Your task to perform on an android device: Search for the best rated mechanical keyboard on Amazon. Image 0: 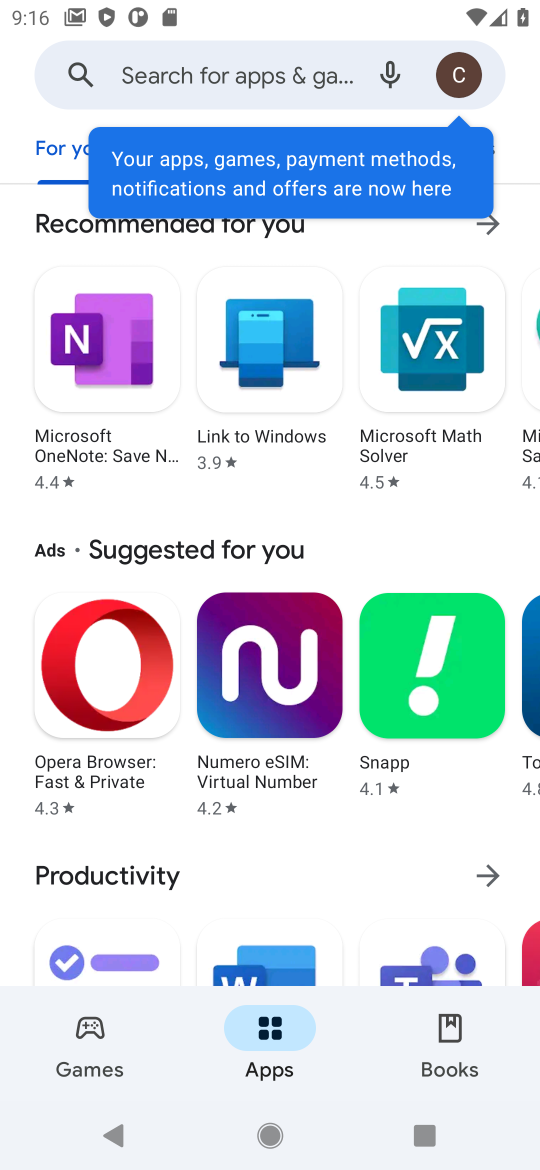
Step 0: press home button
Your task to perform on an android device: Search for the best rated mechanical keyboard on Amazon. Image 1: 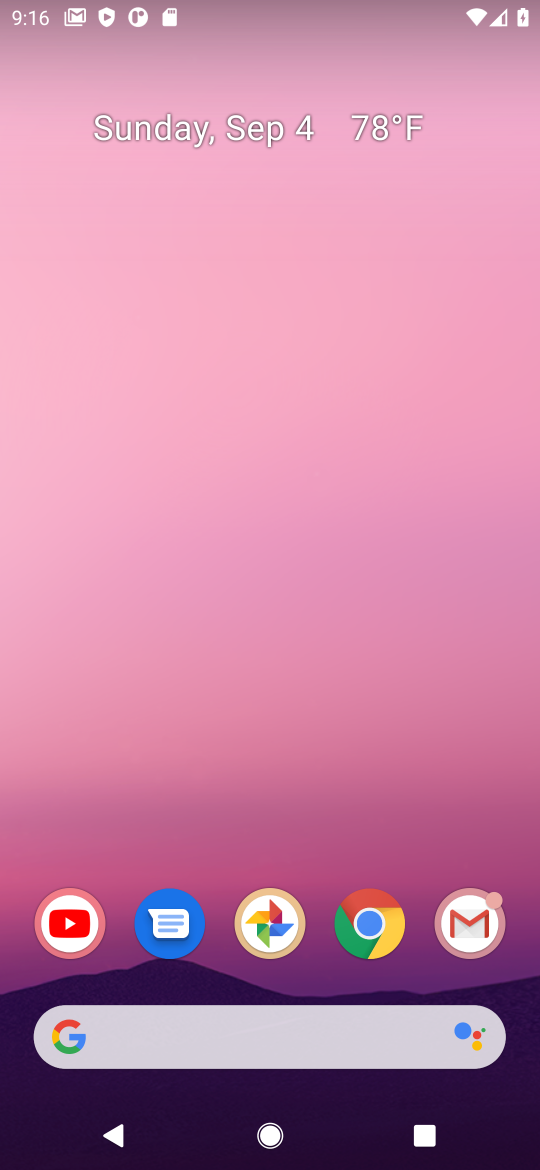
Step 1: click (116, 1031)
Your task to perform on an android device: Search for the best rated mechanical keyboard on Amazon. Image 2: 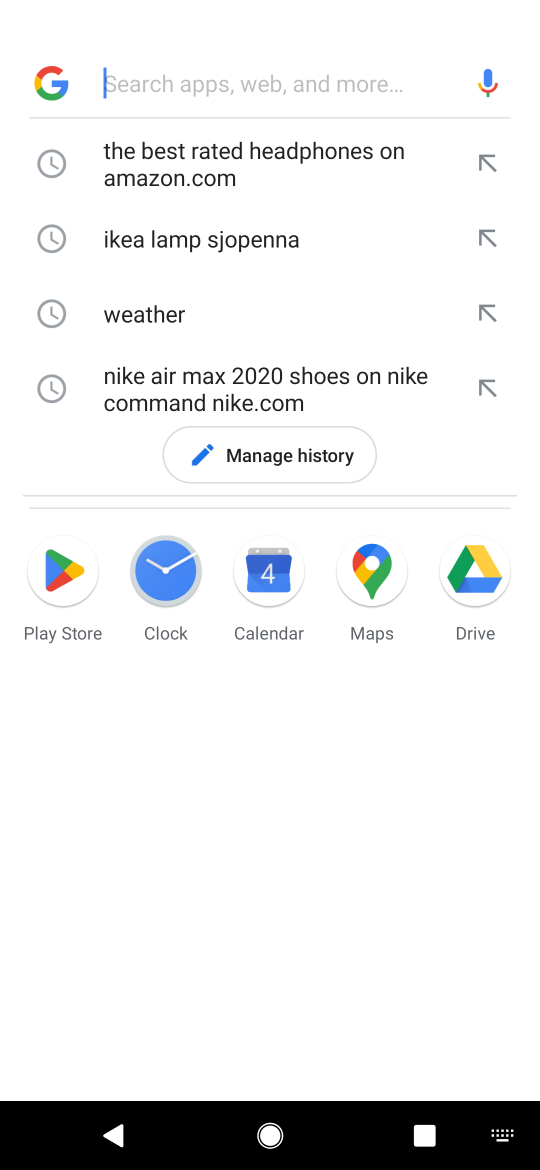
Step 2: type " the best rated mechanical keyboard on Amazon."
Your task to perform on an android device: Search for the best rated mechanical keyboard on Amazon. Image 3: 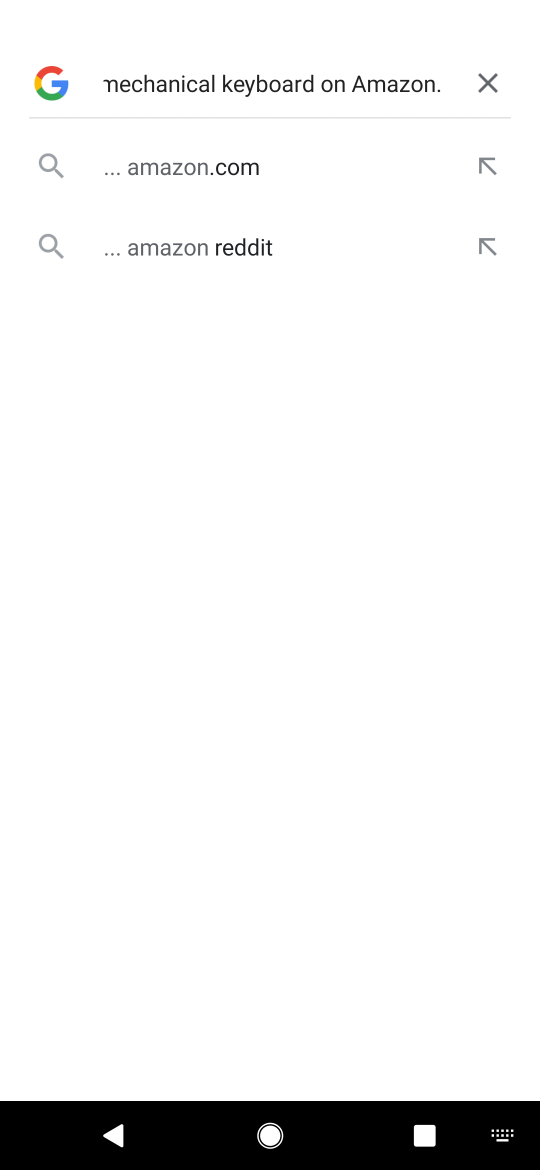
Step 3: type ""
Your task to perform on an android device: Search for the best rated mechanical keyboard on Amazon. Image 4: 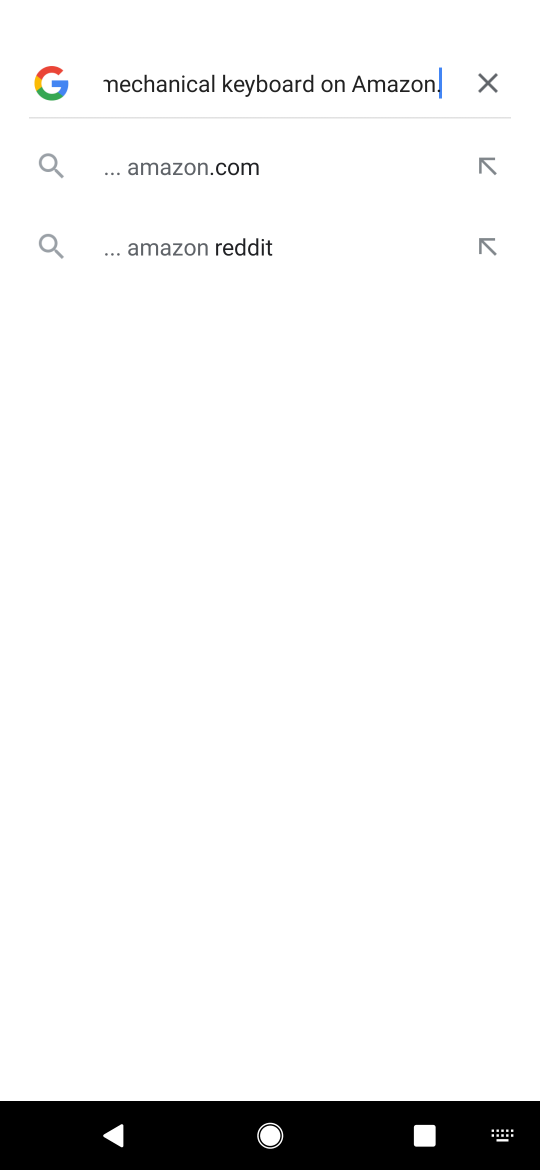
Step 4: click (237, 154)
Your task to perform on an android device: Search for the best rated mechanical keyboard on Amazon. Image 5: 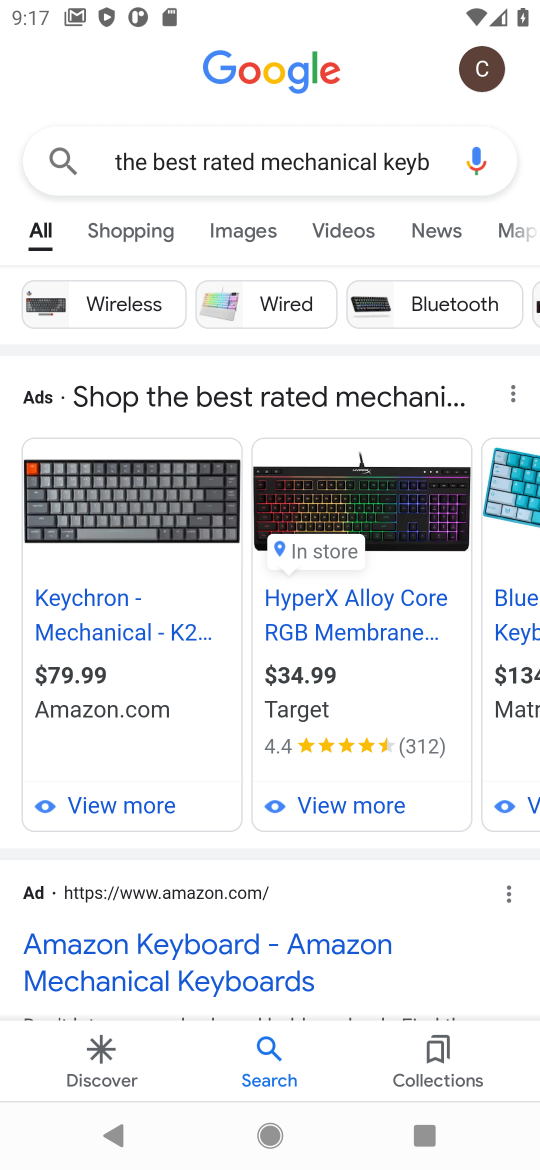
Step 5: click (368, 557)
Your task to perform on an android device: Search for the best rated mechanical keyboard on Amazon. Image 6: 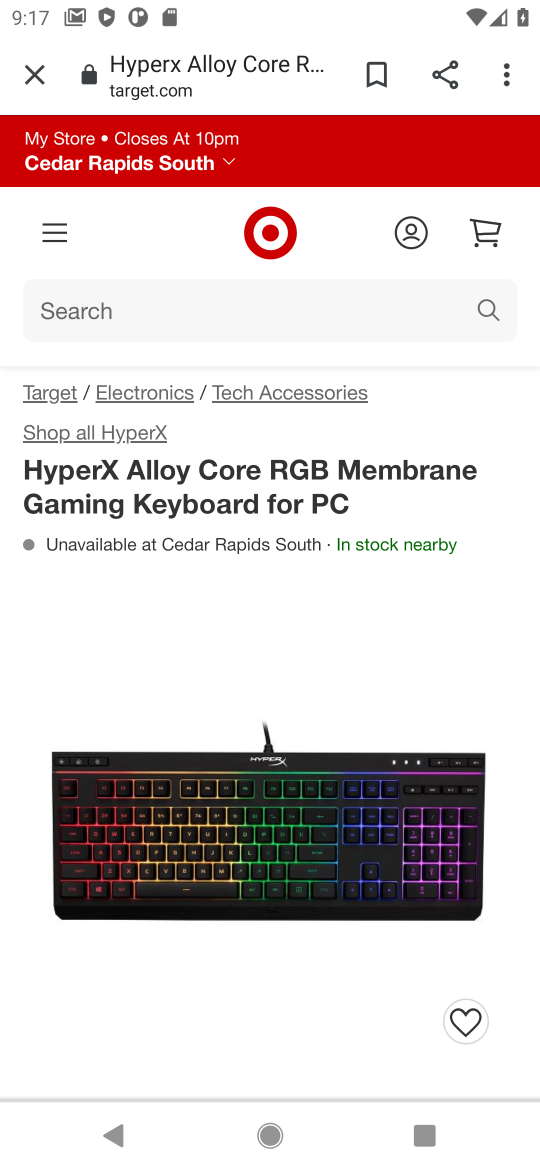
Step 6: click (33, 78)
Your task to perform on an android device: Search for the best rated mechanical keyboard on Amazon. Image 7: 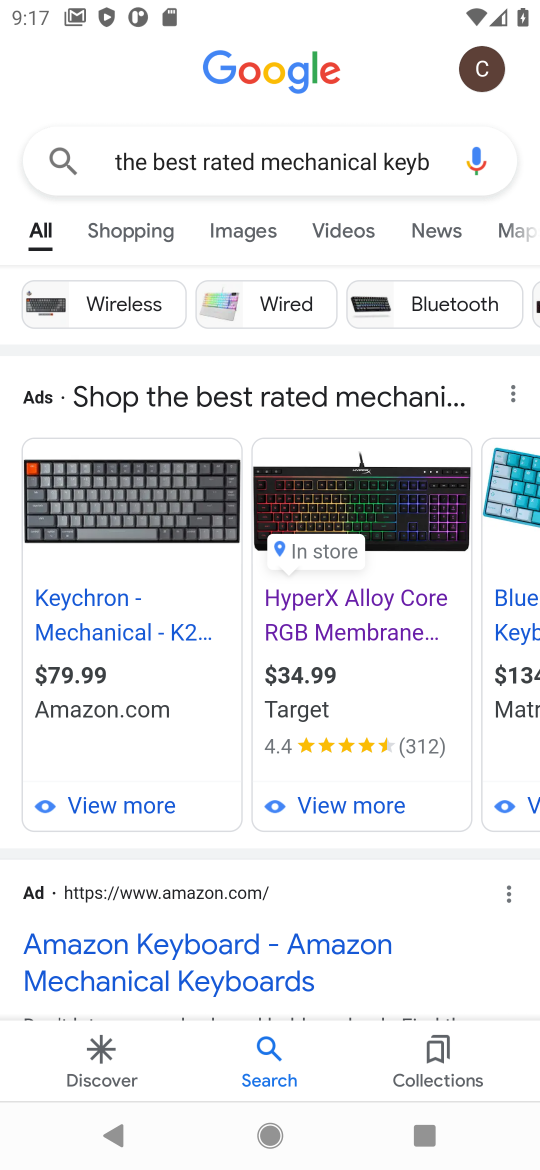
Step 7: task complete